Your task to perform on an android device: Open calendar and show me the fourth week of next month Image 0: 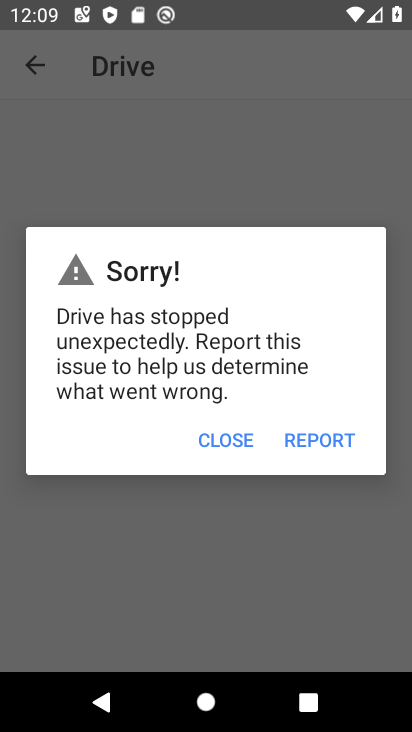
Step 0: press home button
Your task to perform on an android device: Open calendar and show me the fourth week of next month Image 1: 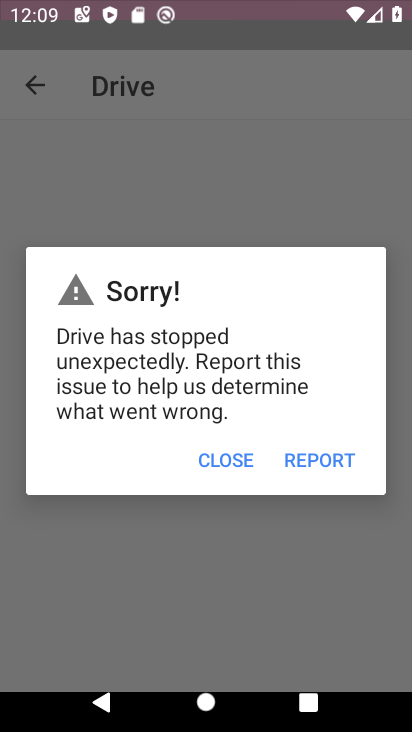
Step 1: press home button
Your task to perform on an android device: Open calendar and show me the fourth week of next month Image 2: 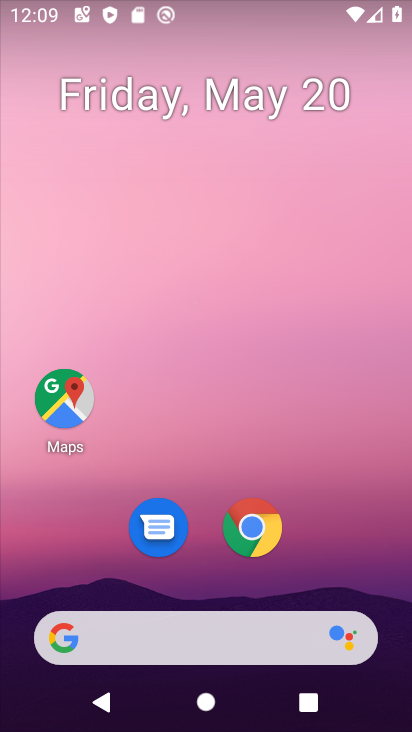
Step 2: drag from (339, 474) to (315, 112)
Your task to perform on an android device: Open calendar and show me the fourth week of next month Image 3: 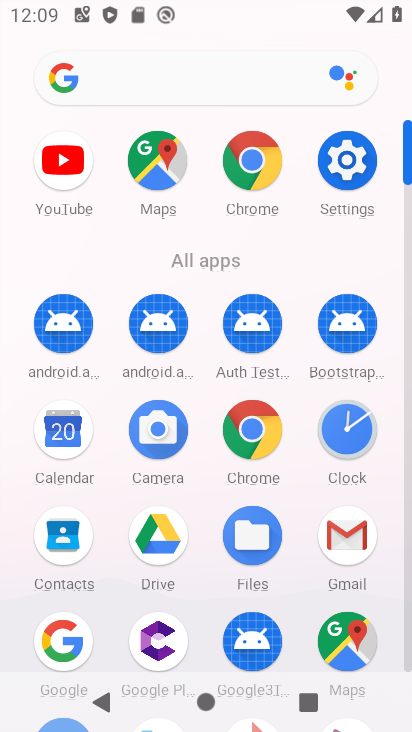
Step 3: click (342, 160)
Your task to perform on an android device: Open calendar and show me the fourth week of next month Image 4: 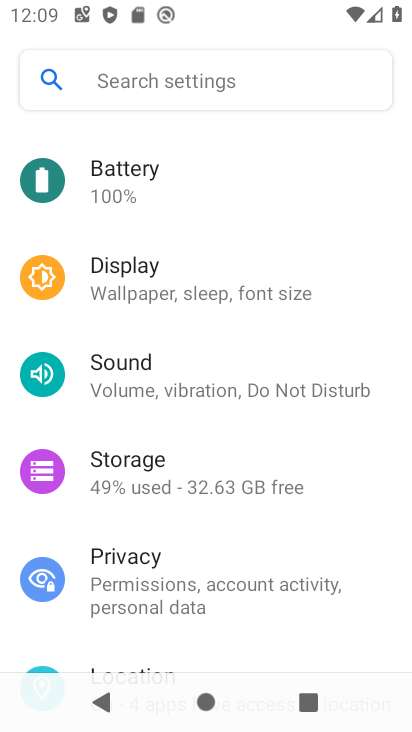
Step 4: press home button
Your task to perform on an android device: Open calendar and show me the fourth week of next month Image 5: 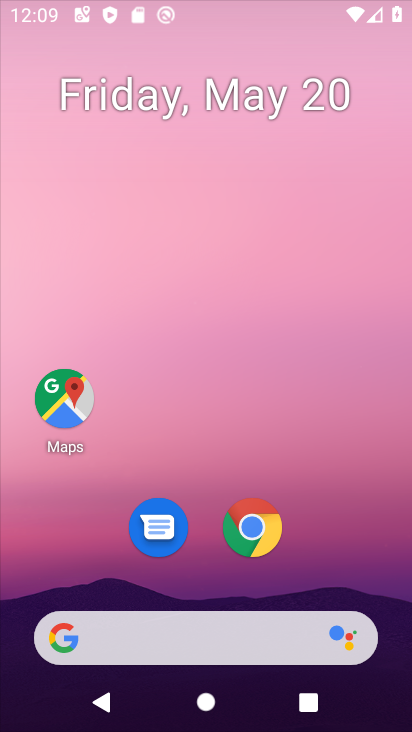
Step 5: drag from (373, 529) to (292, 53)
Your task to perform on an android device: Open calendar and show me the fourth week of next month Image 6: 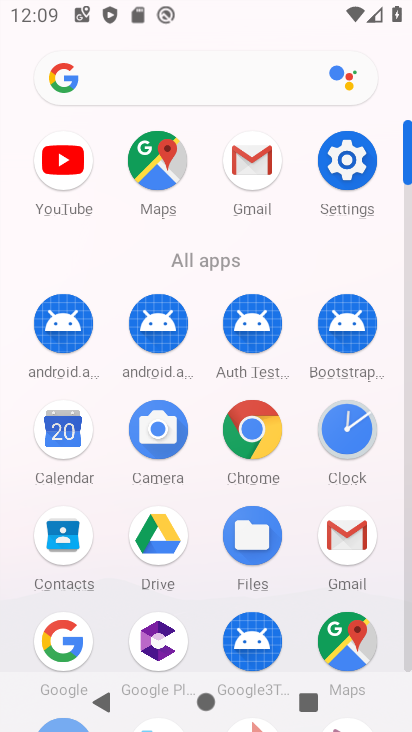
Step 6: click (67, 446)
Your task to perform on an android device: Open calendar and show me the fourth week of next month Image 7: 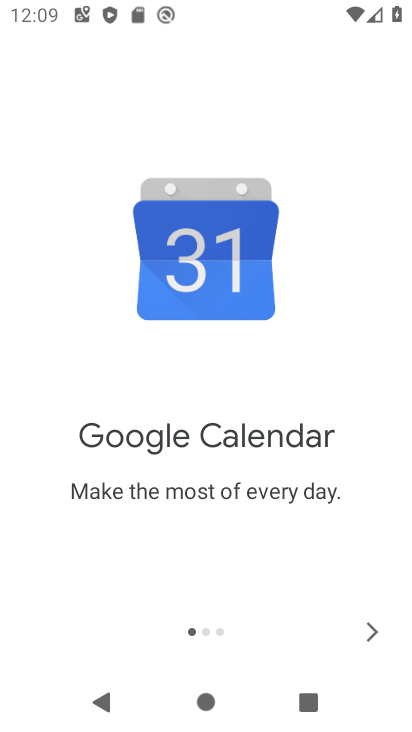
Step 7: click (382, 632)
Your task to perform on an android device: Open calendar and show me the fourth week of next month Image 8: 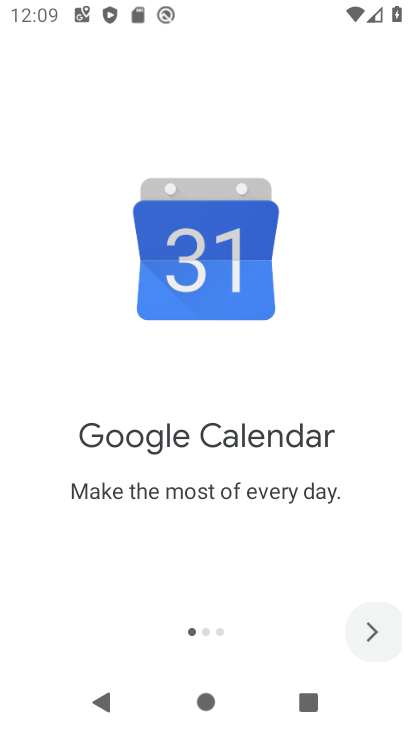
Step 8: click (382, 632)
Your task to perform on an android device: Open calendar and show me the fourth week of next month Image 9: 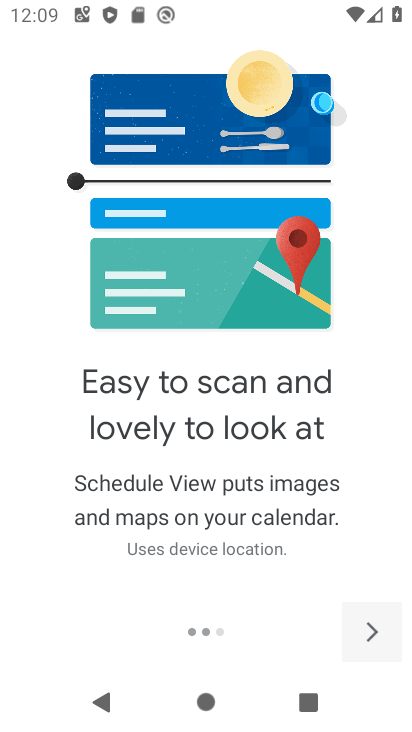
Step 9: click (382, 632)
Your task to perform on an android device: Open calendar and show me the fourth week of next month Image 10: 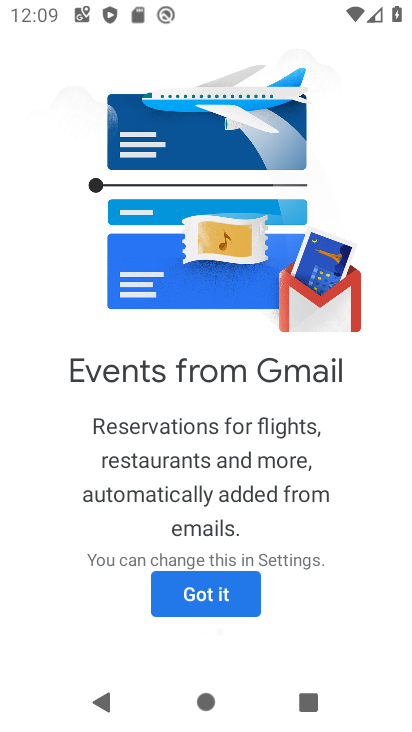
Step 10: click (382, 632)
Your task to perform on an android device: Open calendar and show me the fourth week of next month Image 11: 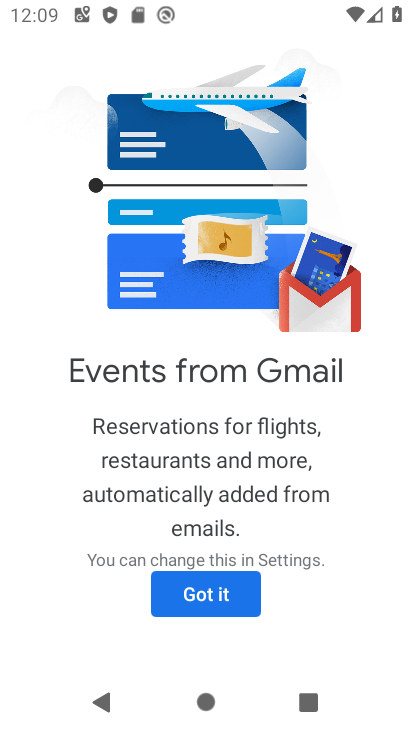
Step 11: click (211, 604)
Your task to perform on an android device: Open calendar and show me the fourth week of next month Image 12: 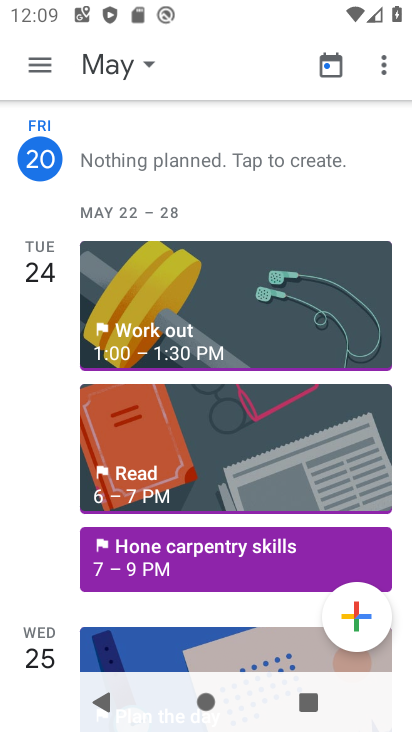
Step 12: click (141, 65)
Your task to perform on an android device: Open calendar and show me the fourth week of next month Image 13: 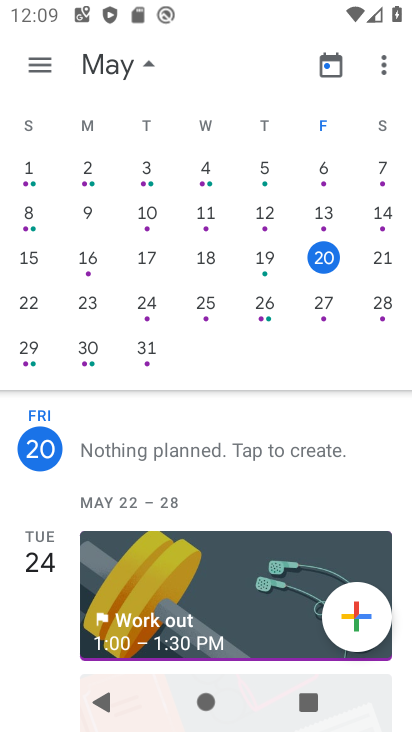
Step 13: drag from (358, 243) to (2, 298)
Your task to perform on an android device: Open calendar and show me the fourth week of next month Image 14: 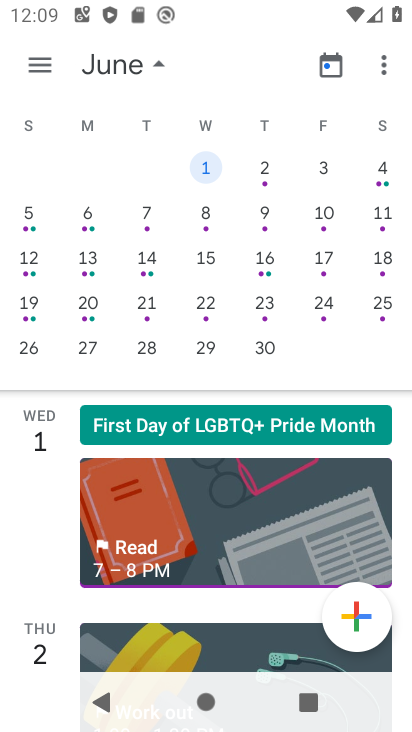
Step 14: click (197, 297)
Your task to perform on an android device: Open calendar and show me the fourth week of next month Image 15: 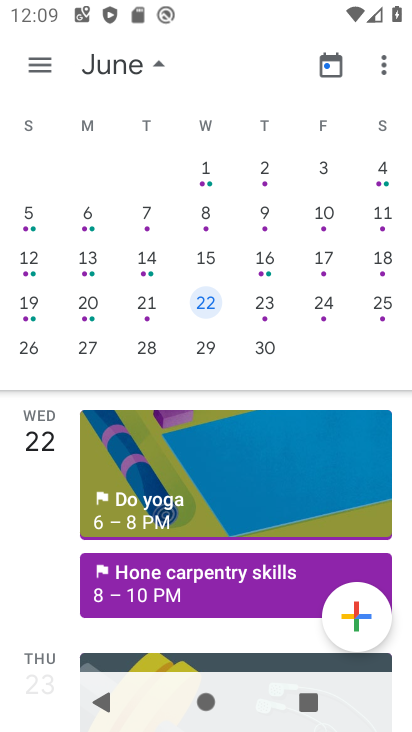
Step 15: task complete